Your task to perform on an android device: Open Yahoo.com Image 0: 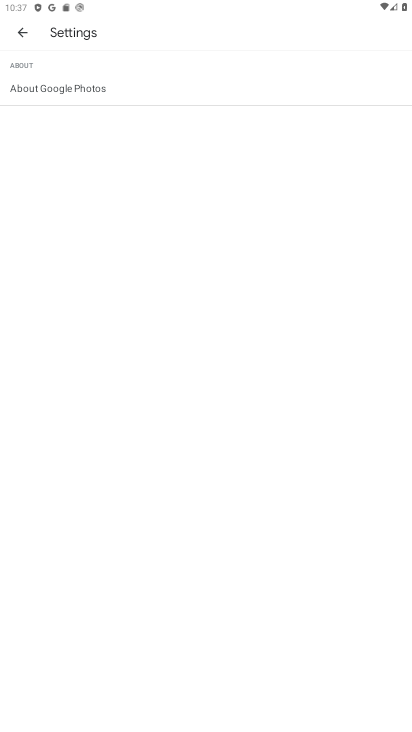
Step 0: press home button
Your task to perform on an android device: Open Yahoo.com Image 1: 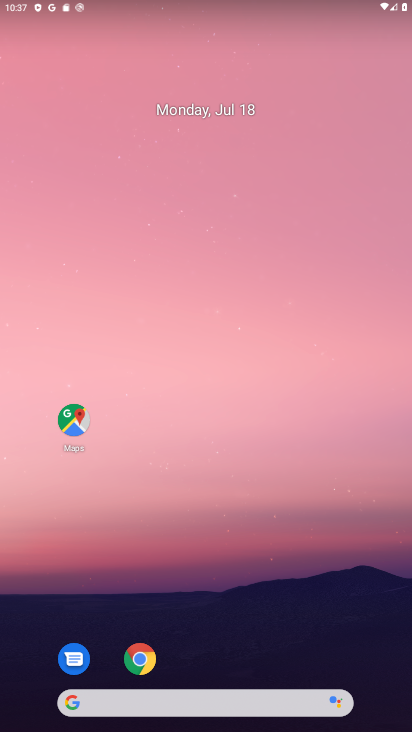
Step 1: click (136, 659)
Your task to perform on an android device: Open Yahoo.com Image 2: 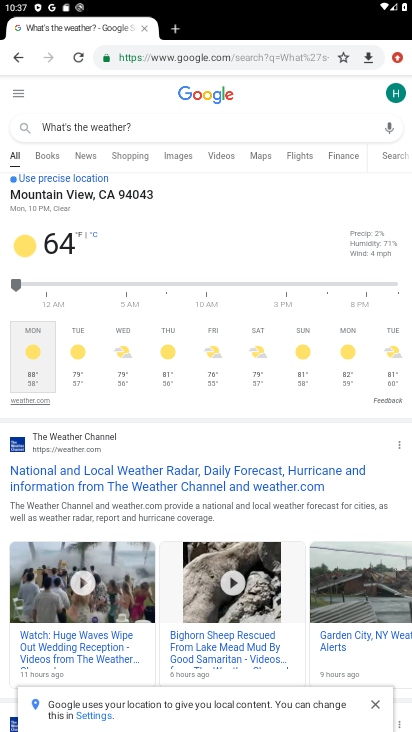
Step 2: click (139, 61)
Your task to perform on an android device: Open Yahoo.com Image 3: 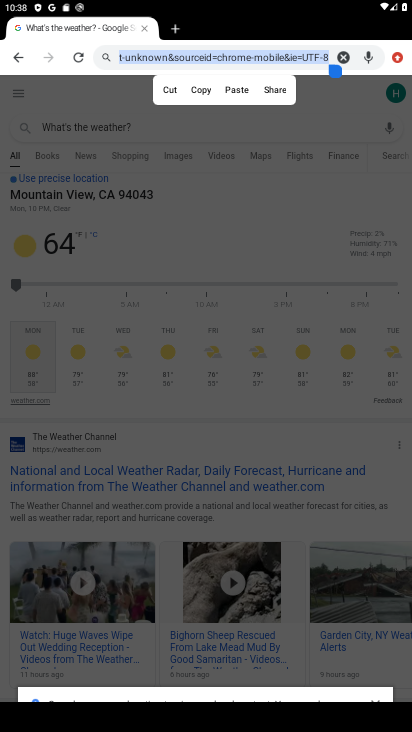
Step 3: type "Yahoo.com"
Your task to perform on an android device: Open Yahoo.com Image 4: 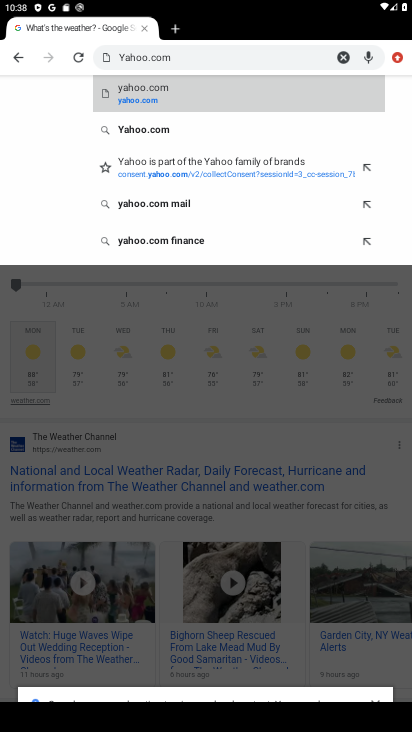
Step 4: click (165, 88)
Your task to perform on an android device: Open Yahoo.com Image 5: 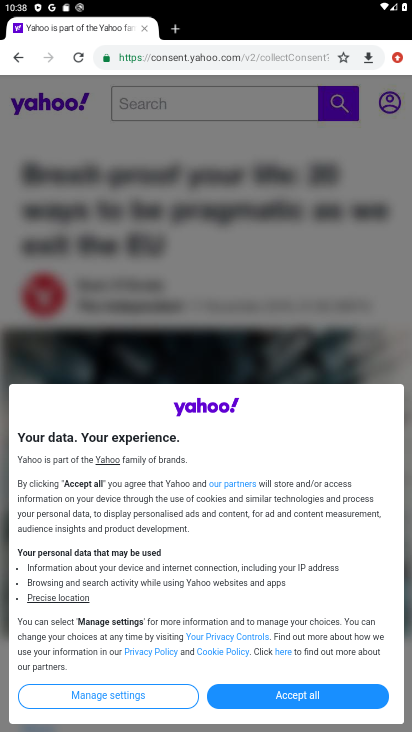
Step 5: task complete